Your task to perform on an android device: Open Amazon Image 0: 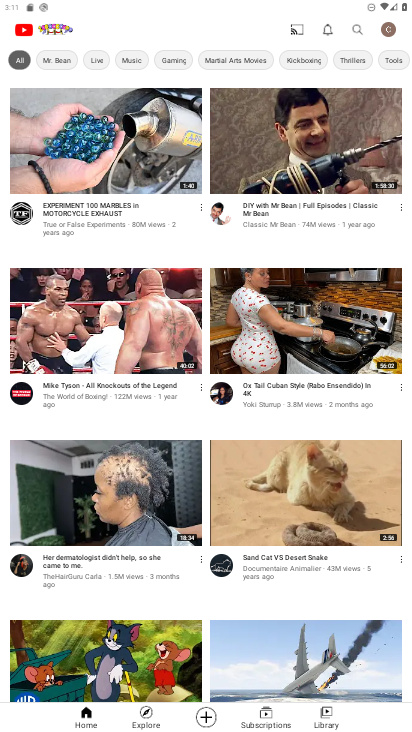
Step 0: press home button
Your task to perform on an android device: Open Amazon Image 1: 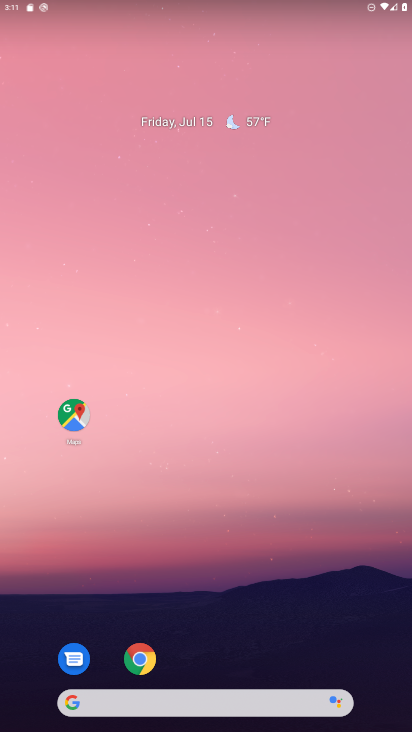
Step 1: click (145, 661)
Your task to perform on an android device: Open Amazon Image 2: 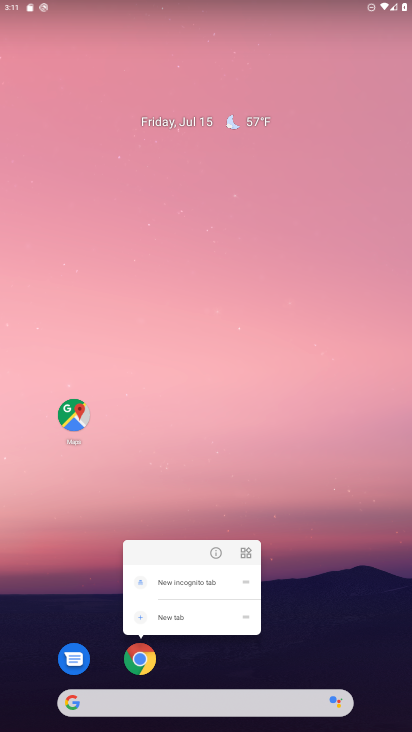
Step 2: click (139, 634)
Your task to perform on an android device: Open Amazon Image 3: 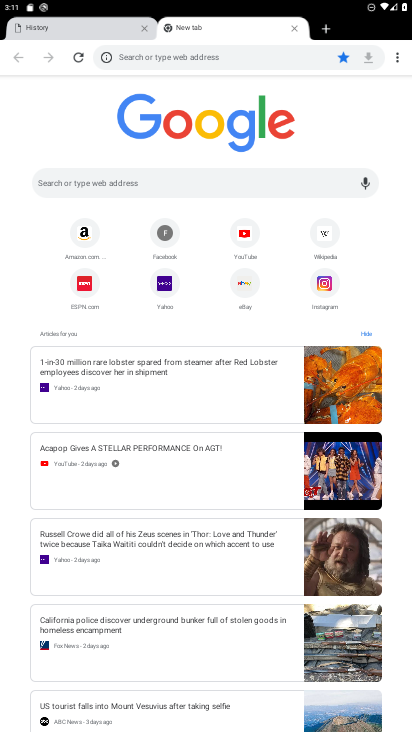
Step 3: click (85, 231)
Your task to perform on an android device: Open Amazon Image 4: 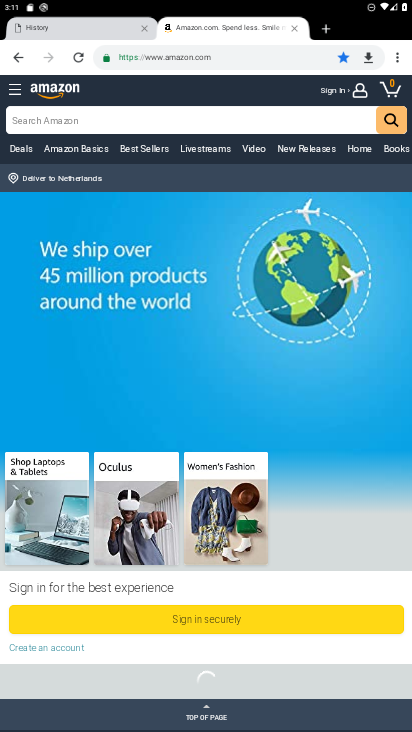
Step 4: task complete